Your task to perform on an android device: change the clock display to digital Image 0: 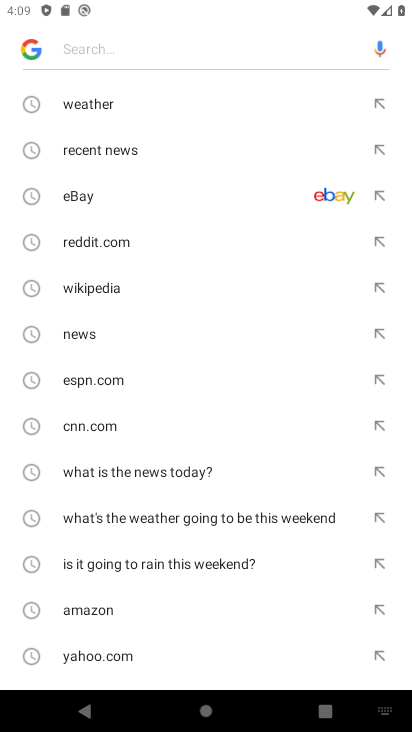
Step 0: press home button
Your task to perform on an android device: change the clock display to digital Image 1: 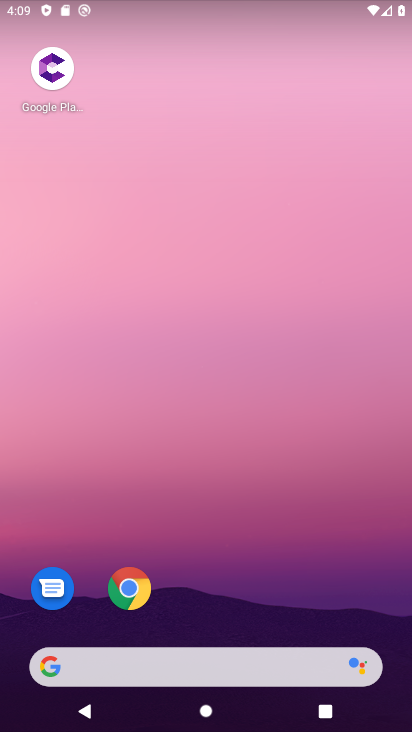
Step 1: drag from (267, 568) to (276, 70)
Your task to perform on an android device: change the clock display to digital Image 2: 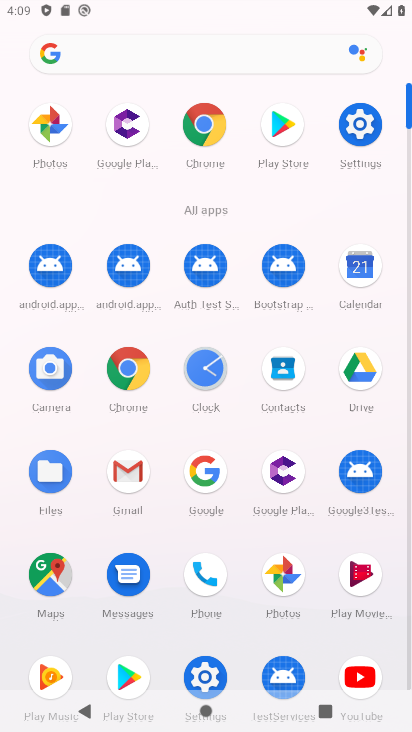
Step 2: click (204, 390)
Your task to perform on an android device: change the clock display to digital Image 3: 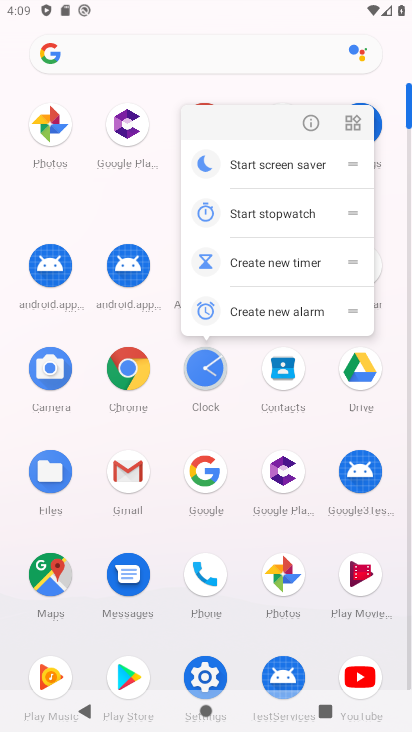
Step 3: click (199, 366)
Your task to perform on an android device: change the clock display to digital Image 4: 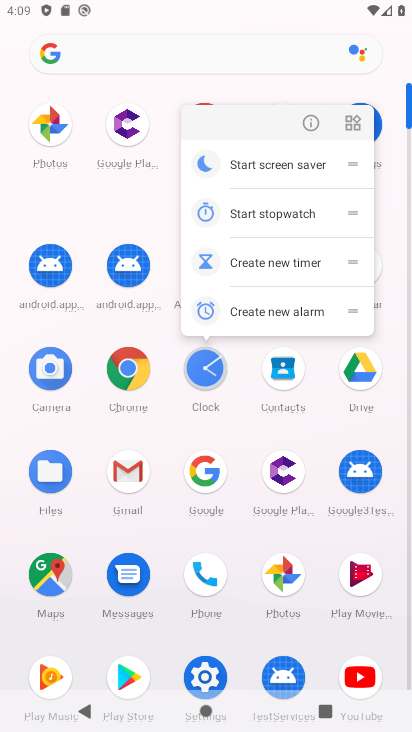
Step 4: click (206, 373)
Your task to perform on an android device: change the clock display to digital Image 5: 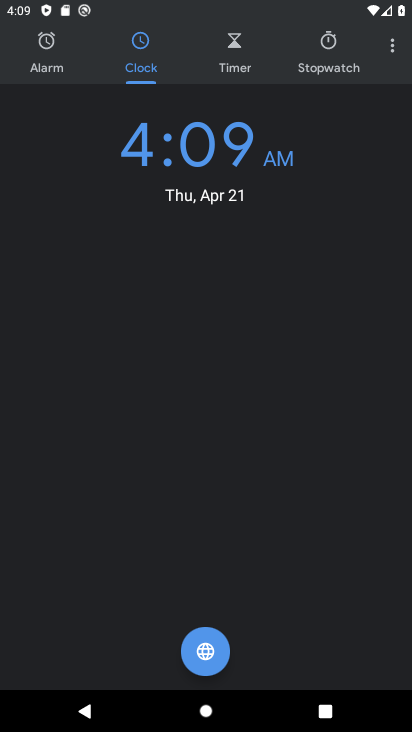
Step 5: click (394, 50)
Your task to perform on an android device: change the clock display to digital Image 6: 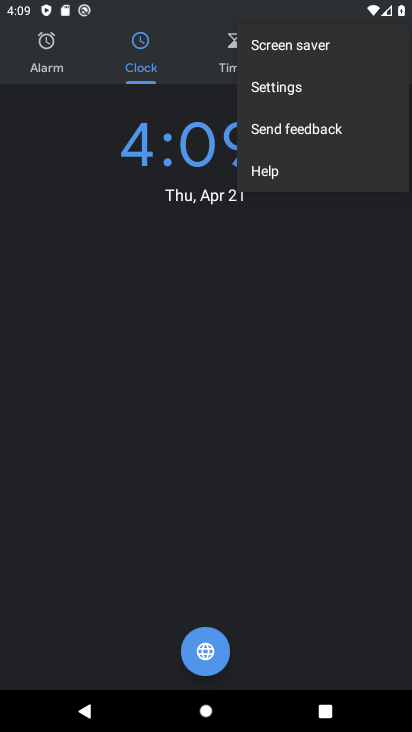
Step 6: click (303, 87)
Your task to perform on an android device: change the clock display to digital Image 7: 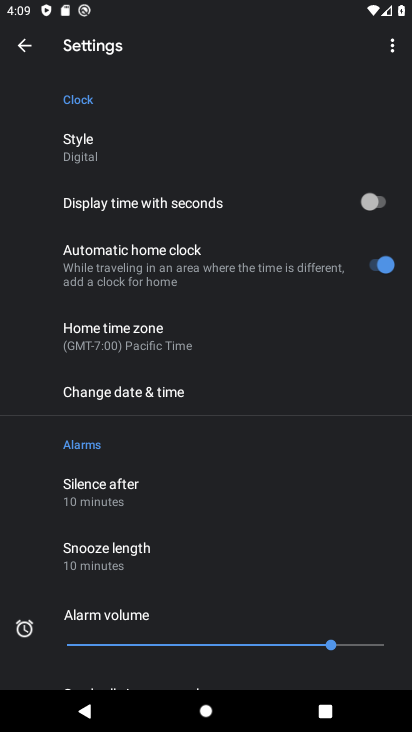
Step 7: task complete